Your task to perform on an android device: turn on javascript in the chrome app Image 0: 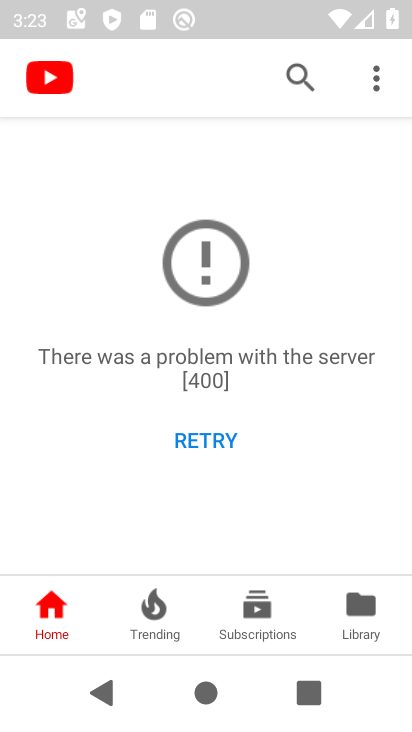
Step 0: press back button
Your task to perform on an android device: turn on javascript in the chrome app Image 1: 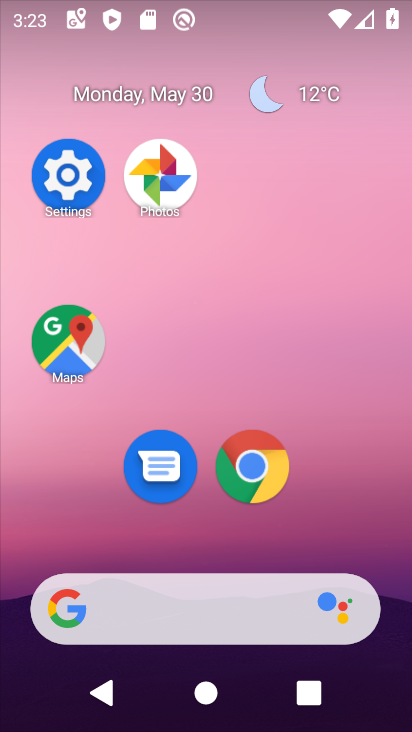
Step 1: click (279, 499)
Your task to perform on an android device: turn on javascript in the chrome app Image 2: 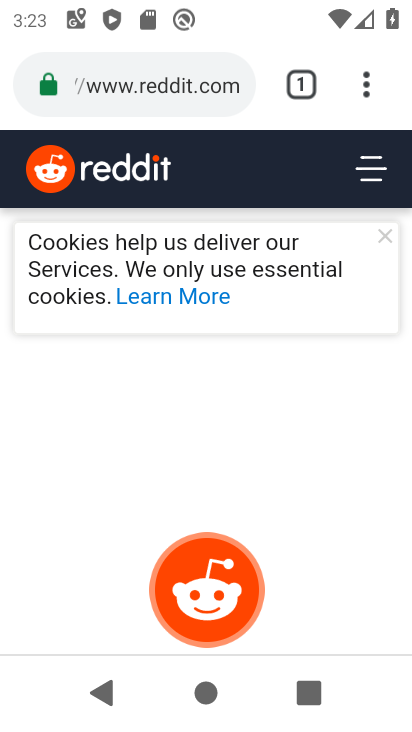
Step 2: click (349, 96)
Your task to perform on an android device: turn on javascript in the chrome app Image 3: 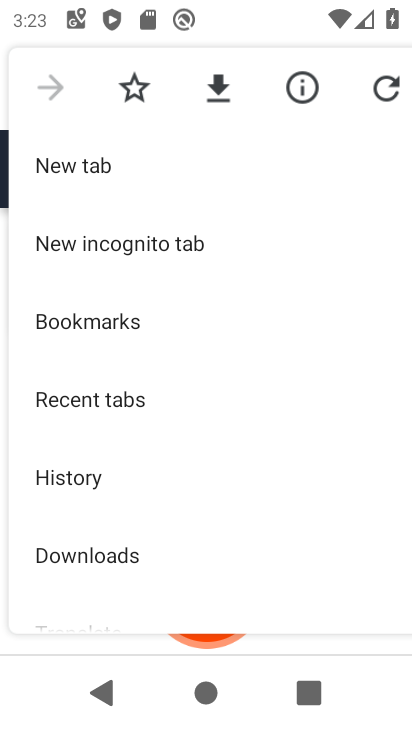
Step 3: drag from (254, 507) to (230, 137)
Your task to perform on an android device: turn on javascript in the chrome app Image 4: 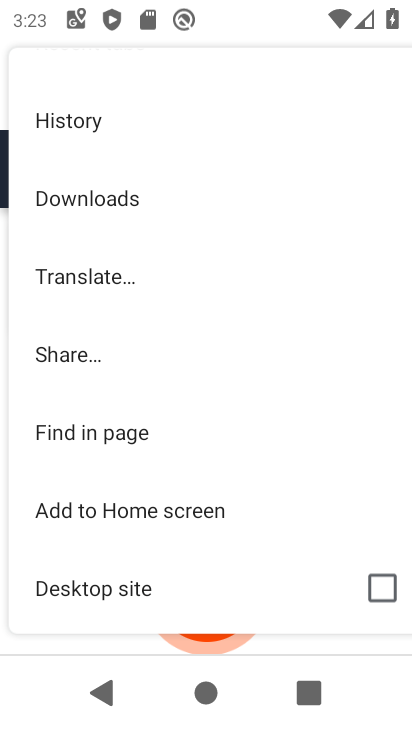
Step 4: drag from (158, 554) to (156, 191)
Your task to perform on an android device: turn on javascript in the chrome app Image 5: 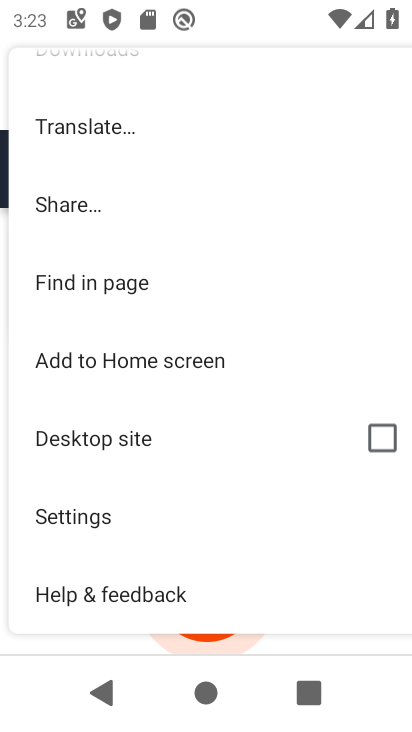
Step 5: click (139, 518)
Your task to perform on an android device: turn on javascript in the chrome app Image 6: 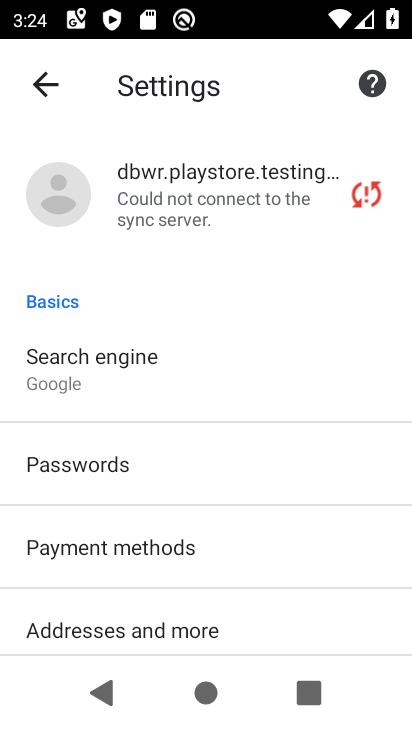
Step 6: drag from (238, 632) to (184, 203)
Your task to perform on an android device: turn on javascript in the chrome app Image 7: 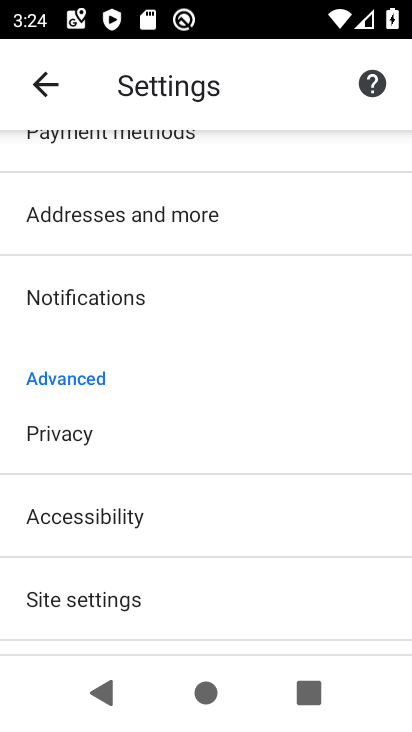
Step 7: drag from (221, 547) to (241, 256)
Your task to perform on an android device: turn on javascript in the chrome app Image 8: 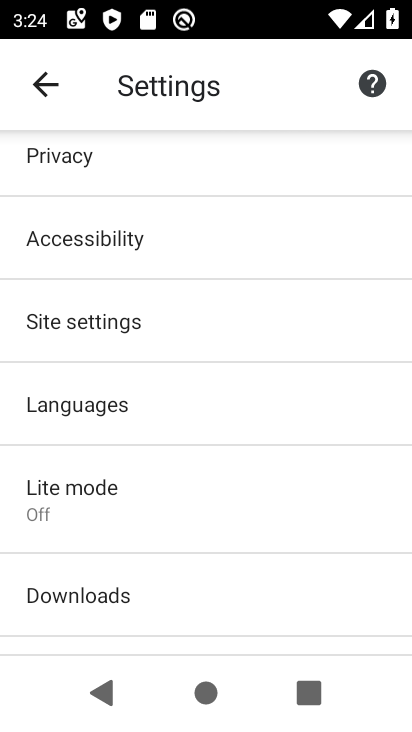
Step 8: click (189, 331)
Your task to perform on an android device: turn on javascript in the chrome app Image 9: 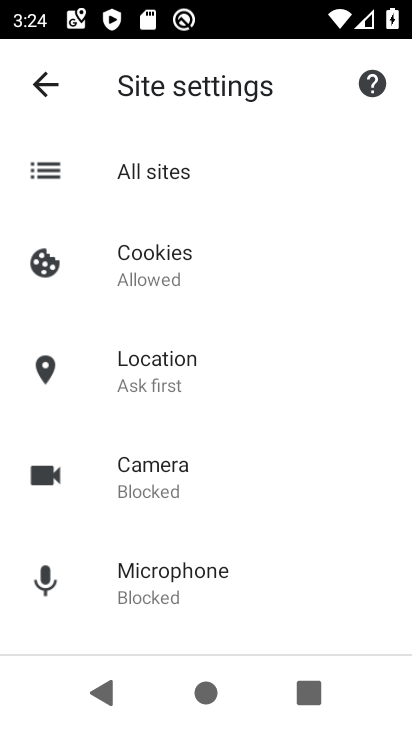
Step 9: drag from (199, 542) to (228, 177)
Your task to perform on an android device: turn on javascript in the chrome app Image 10: 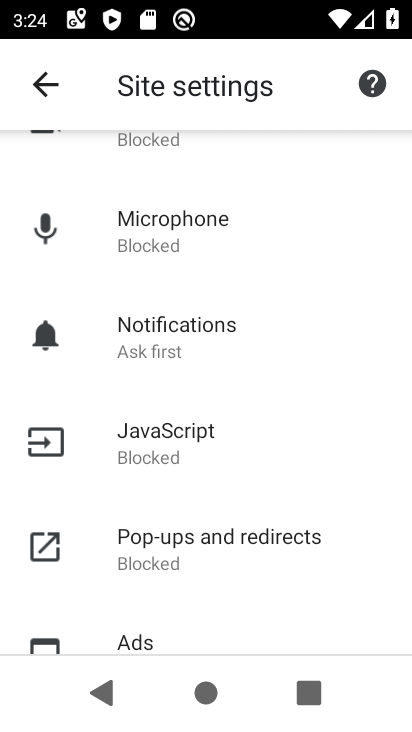
Step 10: click (234, 450)
Your task to perform on an android device: turn on javascript in the chrome app Image 11: 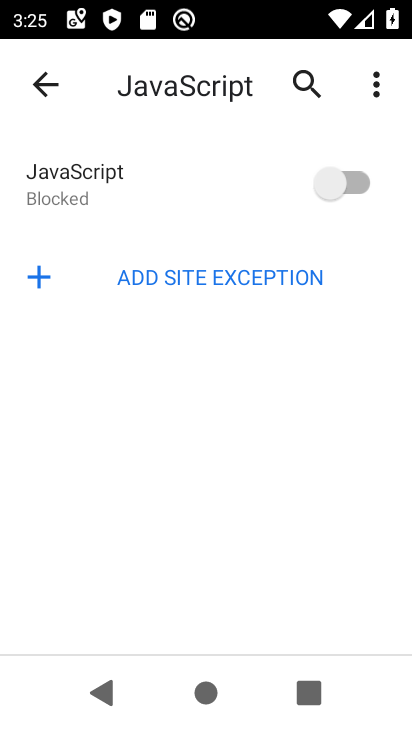
Step 11: click (368, 184)
Your task to perform on an android device: turn on javascript in the chrome app Image 12: 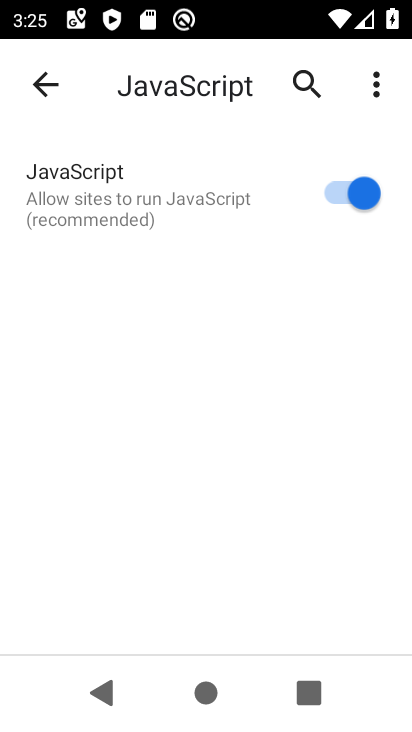
Step 12: task complete